Your task to perform on an android device: stop showing notifications on the lock screen Image 0: 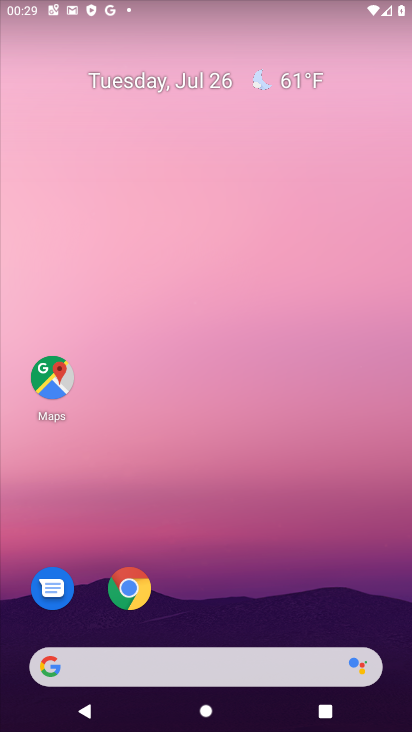
Step 0: press home button
Your task to perform on an android device: stop showing notifications on the lock screen Image 1: 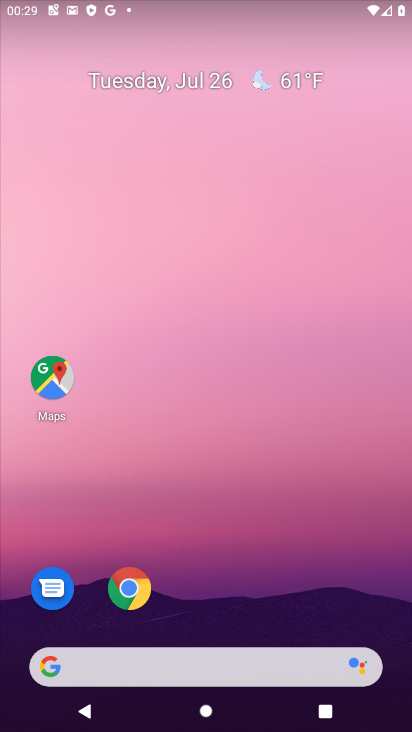
Step 1: drag from (216, 617) to (240, 3)
Your task to perform on an android device: stop showing notifications on the lock screen Image 2: 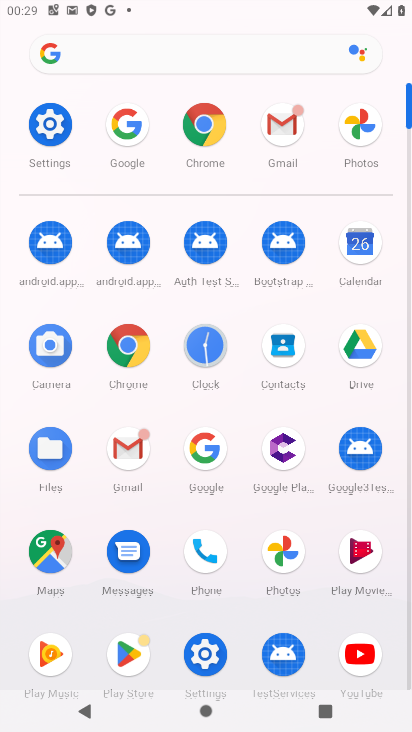
Step 2: click (45, 119)
Your task to perform on an android device: stop showing notifications on the lock screen Image 3: 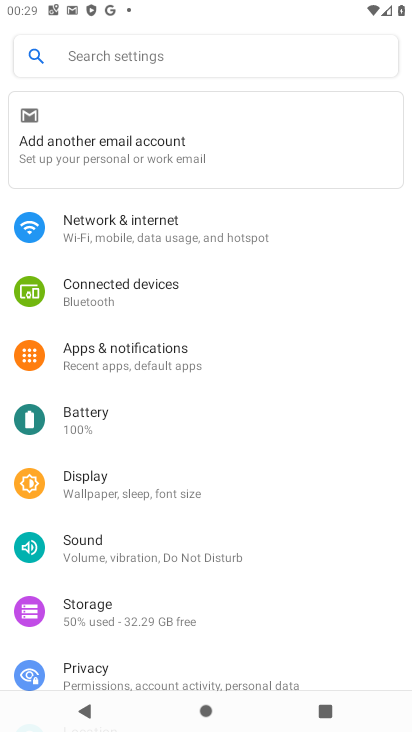
Step 3: click (136, 357)
Your task to perform on an android device: stop showing notifications on the lock screen Image 4: 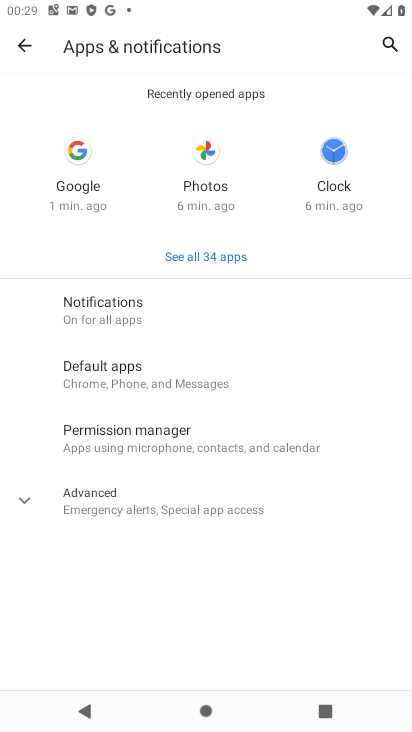
Step 4: click (143, 308)
Your task to perform on an android device: stop showing notifications on the lock screen Image 5: 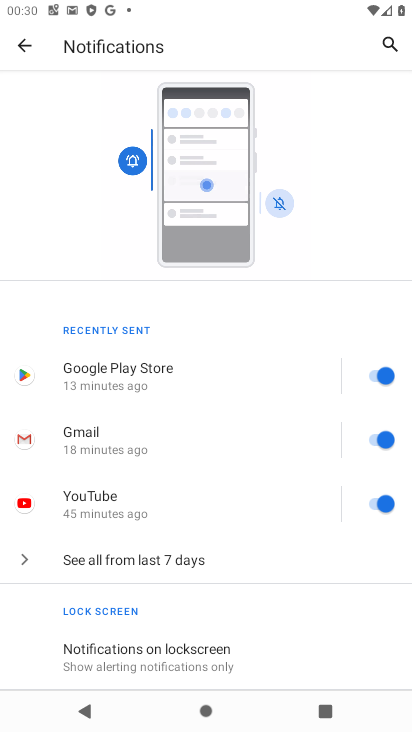
Step 5: click (244, 660)
Your task to perform on an android device: stop showing notifications on the lock screen Image 6: 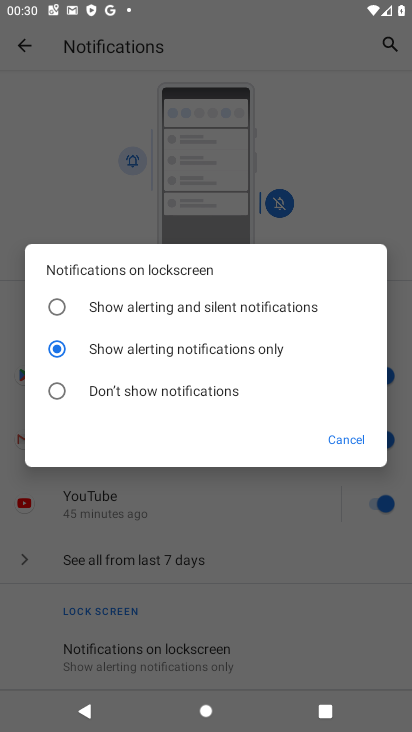
Step 6: click (61, 304)
Your task to perform on an android device: stop showing notifications on the lock screen Image 7: 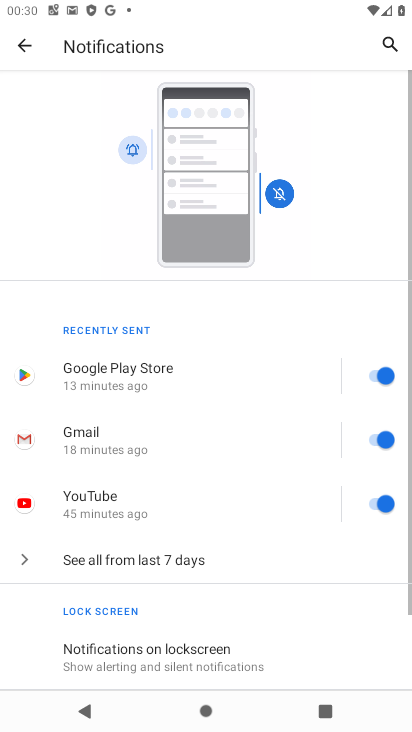
Step 7: task complete